Your task to perform on an android device: set default search engine in the chrome app Image 0: 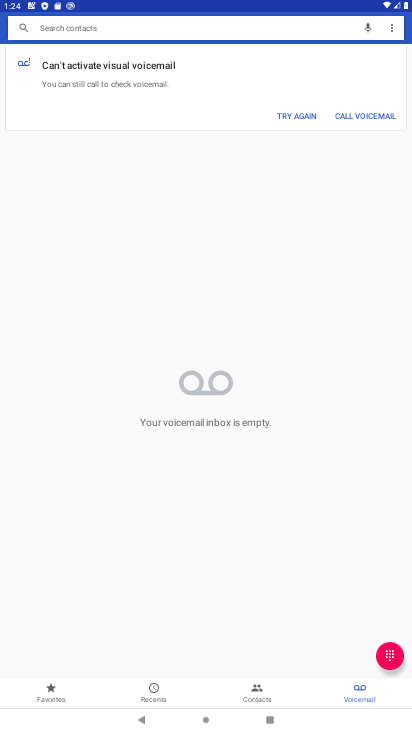
Step 0: task complete